Your task to perform on an android device: turn on priority inbox in the gmail app Image 0: 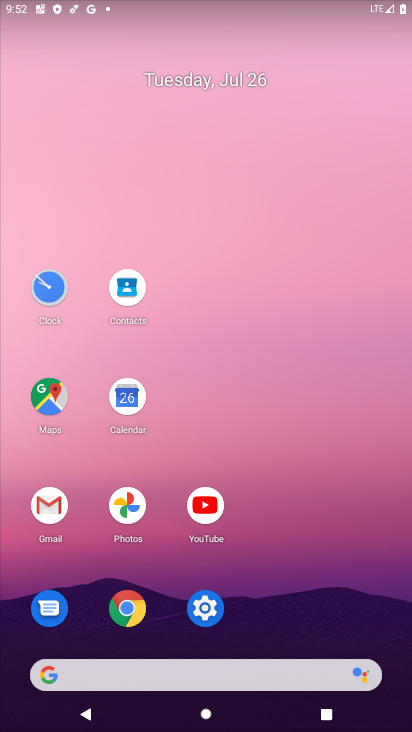
Step 0: click (40, 503)
Your task to perform on an android device: turn on priority inbox in the gmail app Image 1: 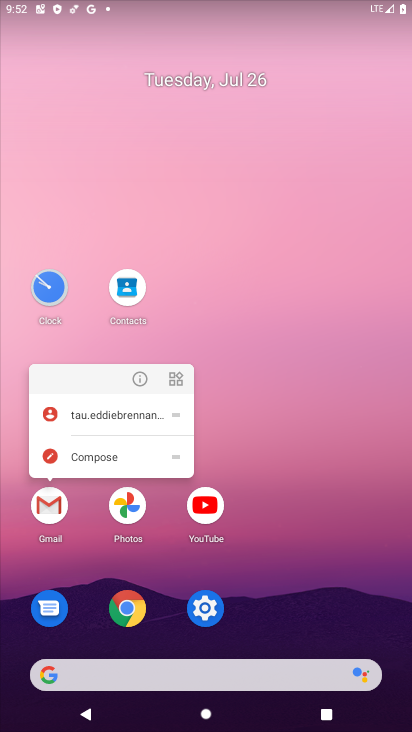
Step 1: click (45, 504)
Your task to perform on an android device: turn on priority inbox in the gmail app Image 2: 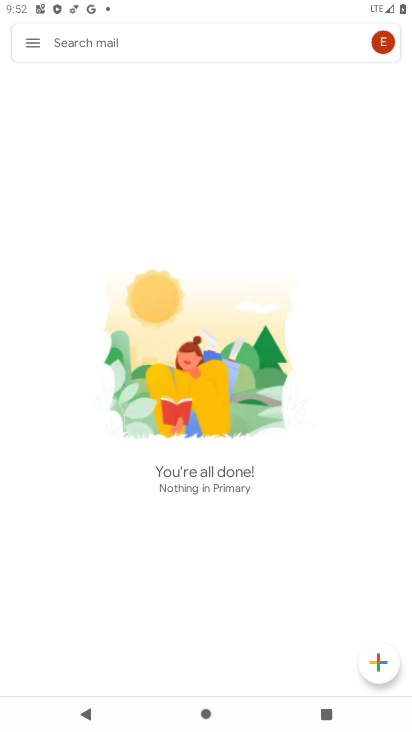
Step 2: click (26, 37)
Your task to perform on an android device: turn on priority inbox in the gmail app Image 3: 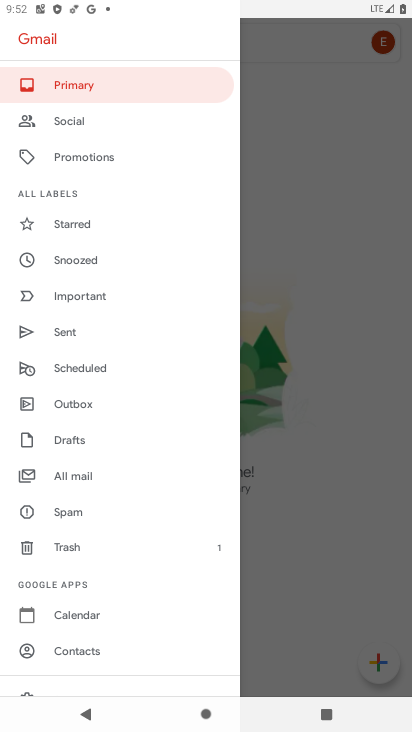
Step 3: drag from (136, 596) to (139, 276)
Your task to perform on an android device: turn on priority inbox in the gmail app Image 4: 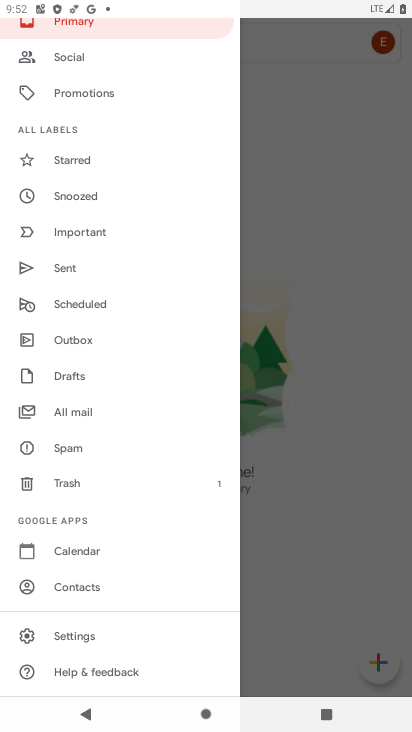
Step 4: click (70, 632)
Your task to perform on an android device: turn on priority inbox in the gmail app Image 5: 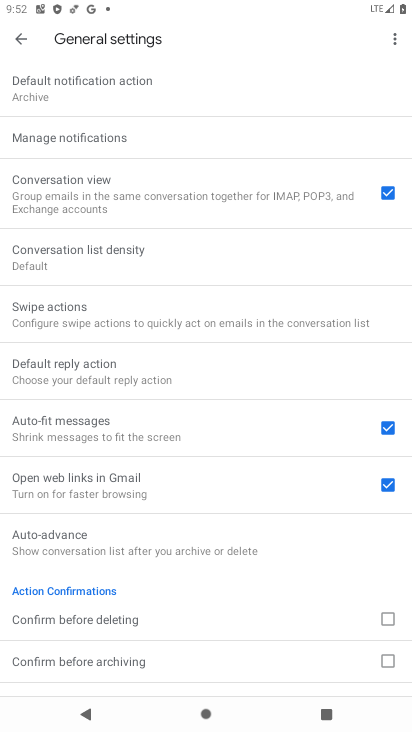
Step 5: click (14, 37)
Your task to perform on an android device: turn on priority inbox in the gmail app Image 6: 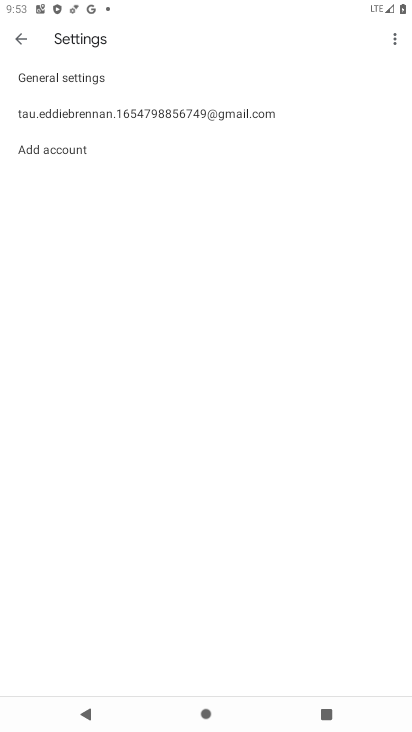
Step 6: click (65, 110)
Your task to perform on an android device: turn on priority inbox in the gmail app Image 7: 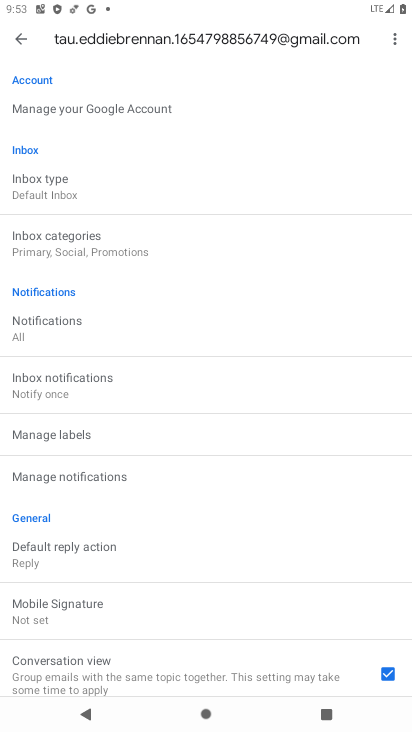
Step 7: click (48, 187)
Your task to perform on an android device: turn on priority inbox in the gmail app Image 8: 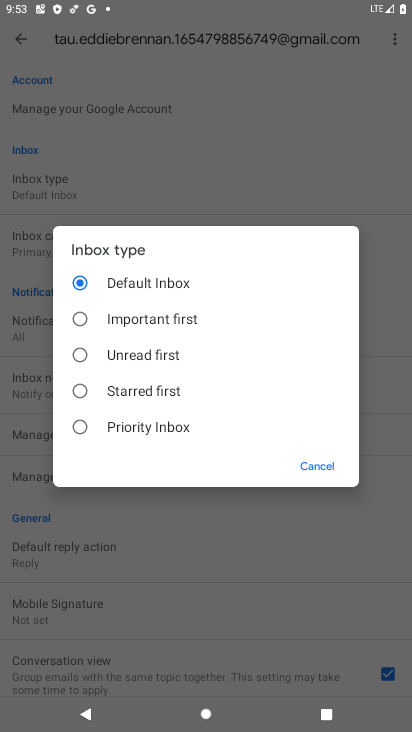
Step 8: click (84, 426)
Your task to perform on an android device: turn on priority inbox in the gmail app Image 9: 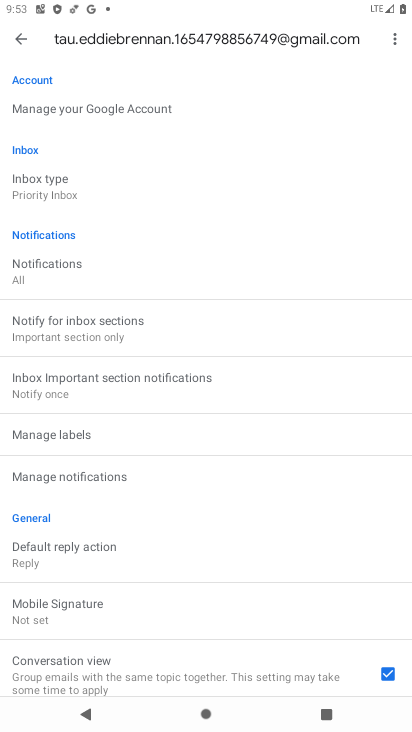
Step 9: task complete